Your task to perform on an android device: Go to Android settings Image 0: 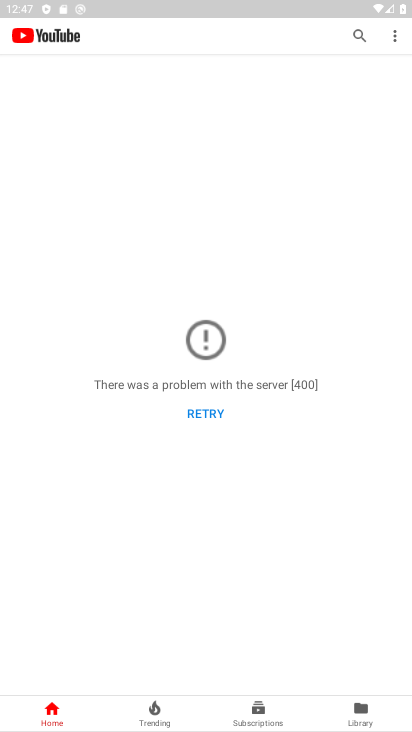
Step 0: press home button
Your task to perform on an android device: Go to Android settings Image 1: 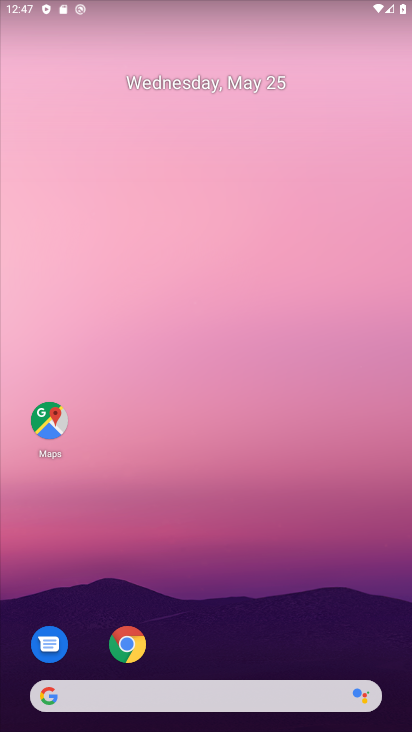
Step 1: drag from (214, 645) to (208, 43)
Your task to perform on an android device: Go to Android settings Image 2: 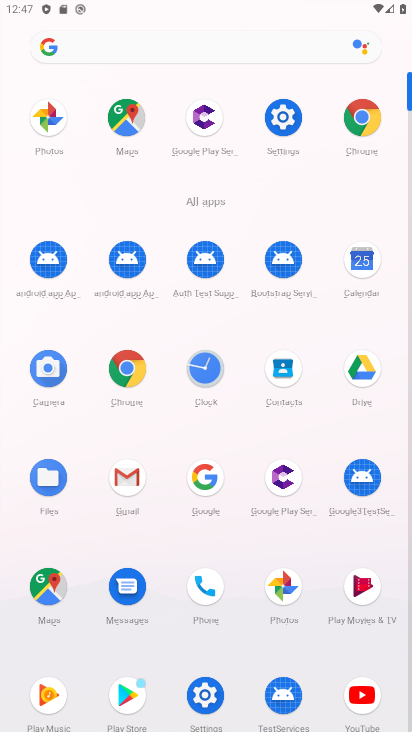
Step 2: click (286, 132)
Your task to perform on an android device: Go to Android settings Image 3: 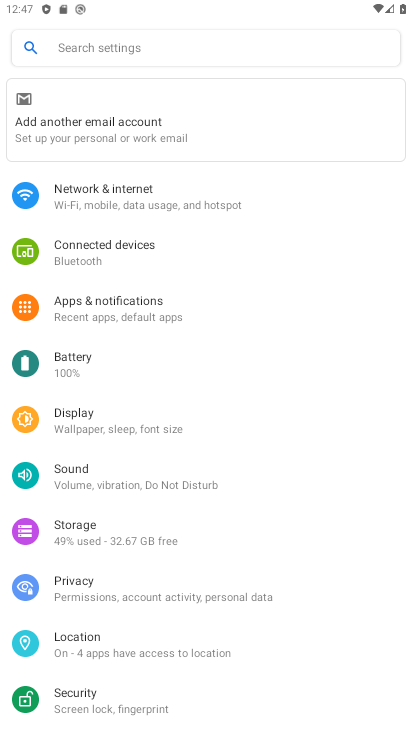
Step 3: drag from (126, 663) to (247, 284)
Your task to perform on an android device: Go to Android settings Image 4: 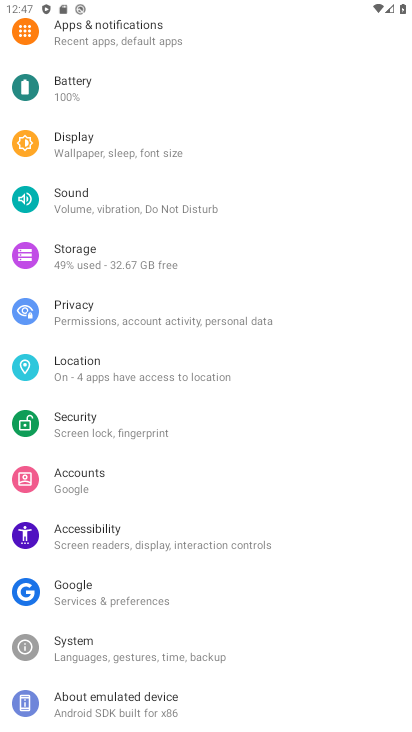
Step 4: click (84, 714)
Your task to perform on an android device: Go to Android settings Image 5: 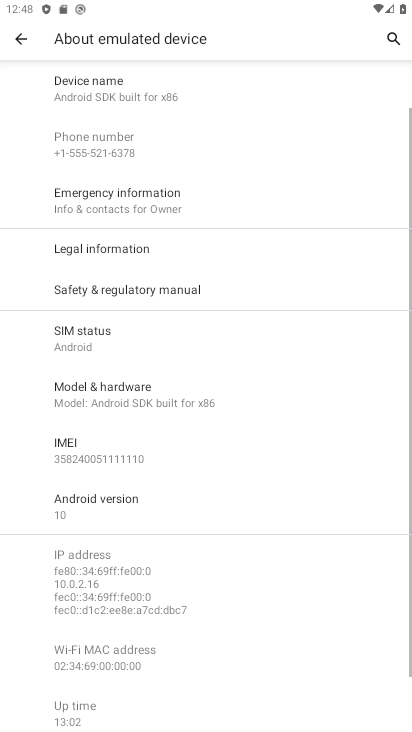
Step 5: click (97, 507)
Your task to perform on an android device: Go to Android settings Image 6: 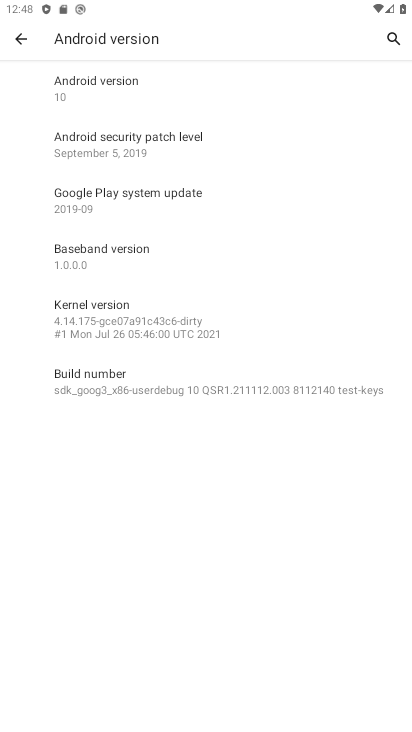
Step 6: task complete